Your task to perform on an android device: Open settings Image 0: 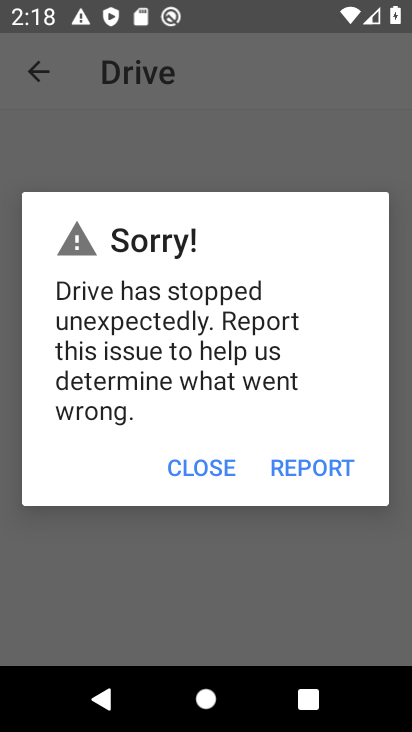
Step 0: press home button
Your task to perform on an android device: Open settings Image 1: 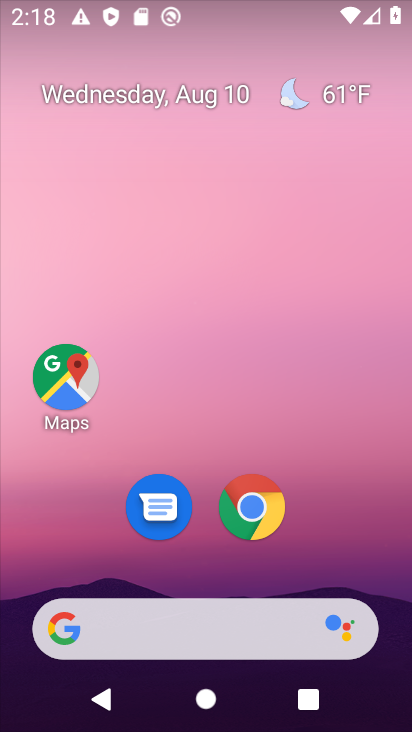
Step 1: drag from (332, 541) to (372, 0)
Your task to perform on an android device: Open settings Image 2: 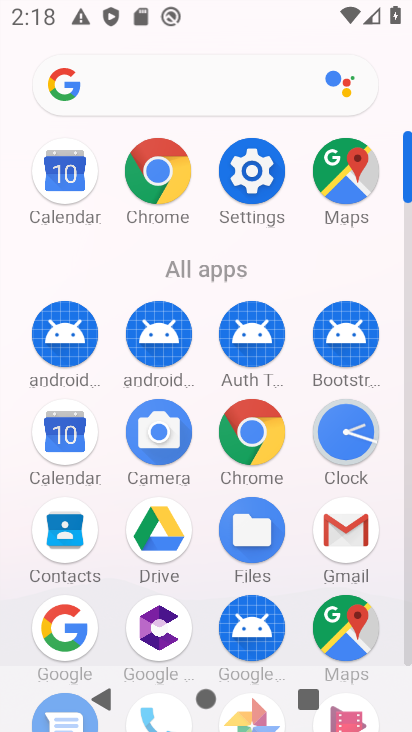
Step 2: click (243, 190)
Your task to perform on an android device: Open settings Image 3: 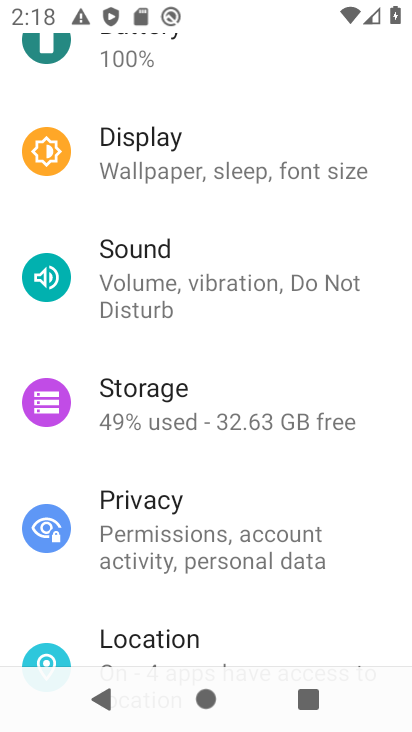
Step 3: task complete